Your task to perform on an android device: Add logitech g pro to the cart on walmart, then select checkout. Image 0: 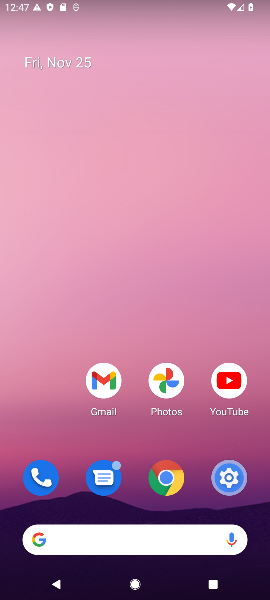
Step 0: click (151, 534)
Your task to perform on an android device: Add logitech g pro to the cart on walmart, then select checkout. Image 1: 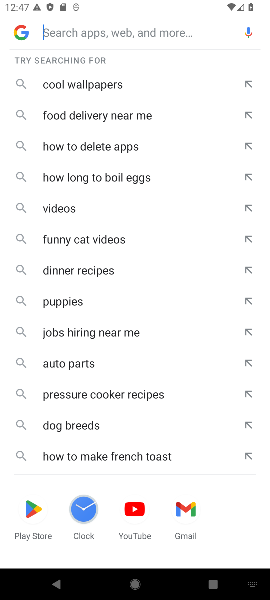
Step 1: type "walmart"
Your task to perform on an android device: Add logitech g pro to the cart on walmart, then select checkout. Image 2: 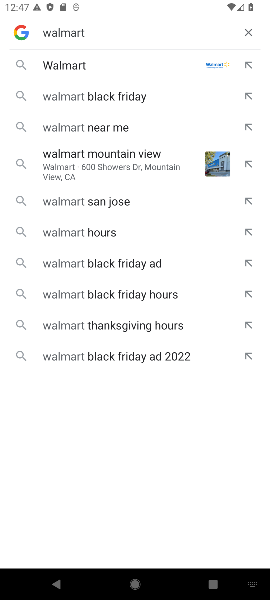
Step 2: click (61, 64)
Your task to perform on an android device: Add logitech g pro to the cart on walmart, then select checkout. Image 3: 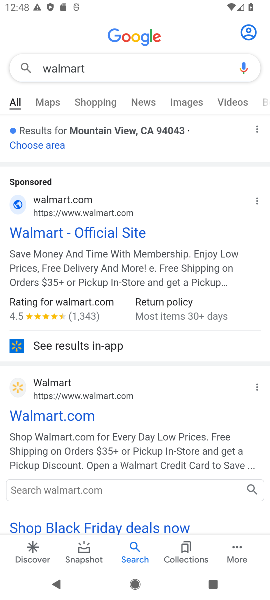
Step 3: click (101, 237)
Your task to perform on an android device: Add logitech g pro to the cart on walmart, then select checkout. Image 4: 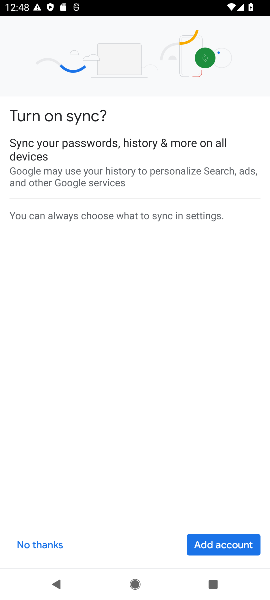
Step 4: click (224, 535)
Your task to perform on an android device: Add logitech g pro to the cart on walmart, then select checkout. Image 5: 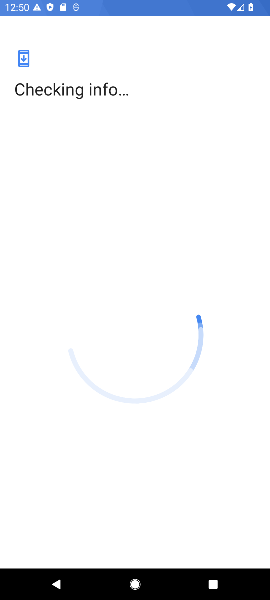
Step 5: task complete